Your task to perform on an android device: toggle data saver in the chrome app Image 0: 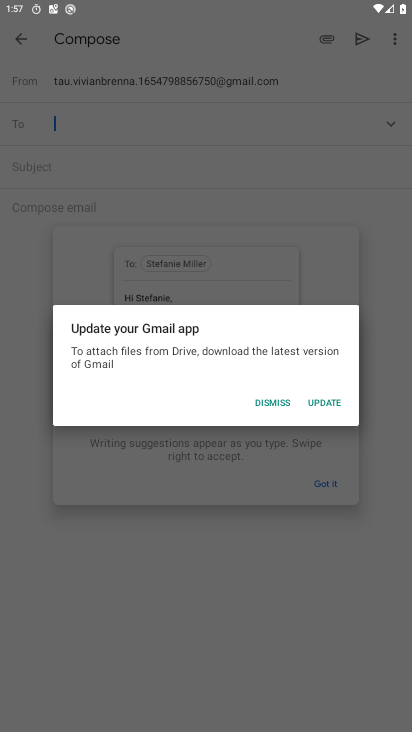
Step 0: press home button
Your task to perform on an android device: toggle data saver in the chrome app Image 1: 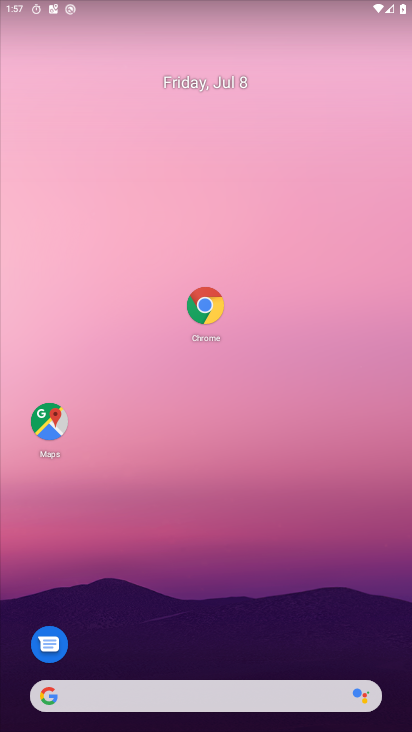
Step 1: drag from (201, 619) to (242, 239)
Your task to perform on an android device: toggle data saver in the chrome app Image 2: 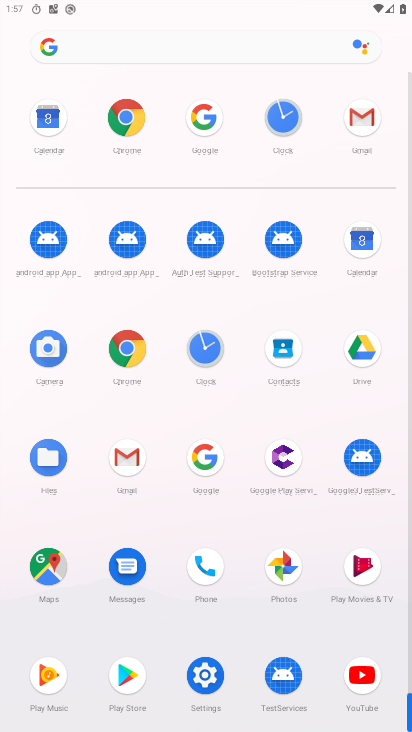
Step 2: click (120, 118)
Your task to perform on an android device: toggle data saver in the chrome app Image 3: 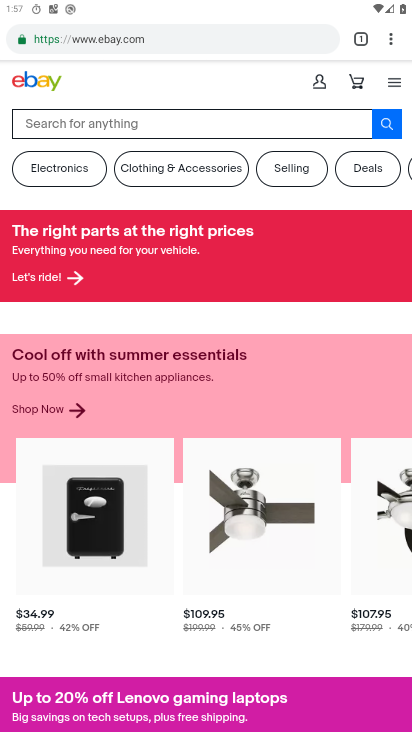
Step 3: click (397, 81)
Your task to perform on an android device: toggle data saver in the chrome app Image 4: 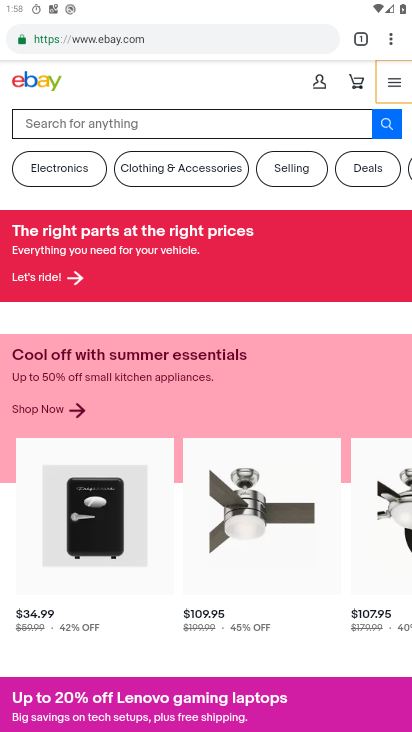
Step 4: click (391, 35)
Your task to perform on an android device: toggle data saver in the chrome app Image 5: 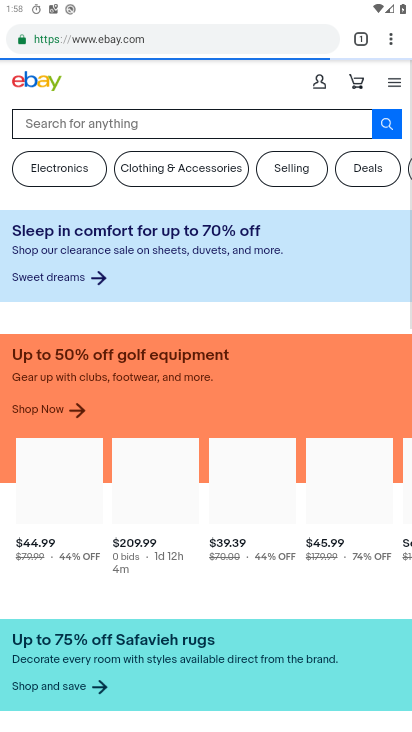
Step 5: click (394, 38)
Your task to perform on an android device: toggle data saver in the chrome app Image 6: 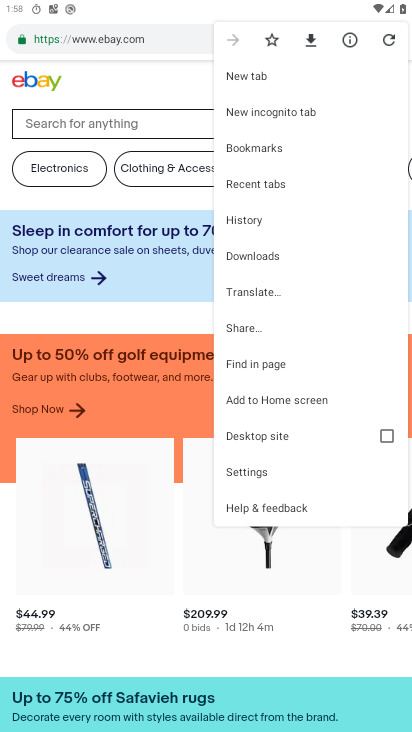
Step 6: click (245, 469)
Your task to perform on an android device: toggle data saver in the chrome app Image 7: 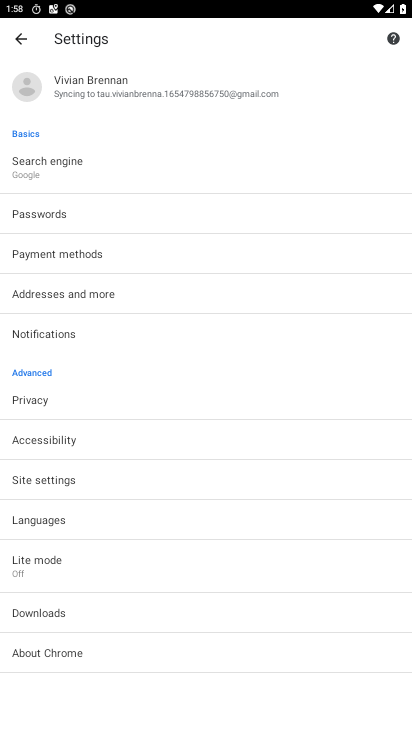
Step 7: click (48, 567)
Your task to perform on an android device: toggle data saver in the chrome app Image 8: 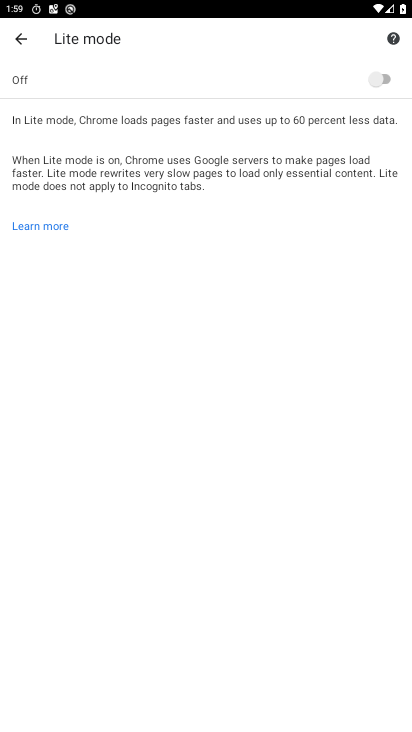
Step 8: click (386, 81)
Your task to perform on an android device: toggle data saver in the chrome app Image 9: 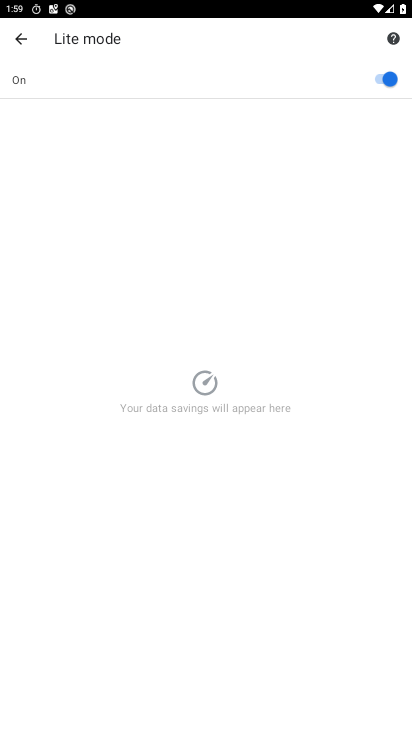
Step 9: task complete